Your task to perform on an android device: open app "Facebook" (install if not already installed) and enter user name: "resultants@gmail.com" and password: "earned" Image 0: 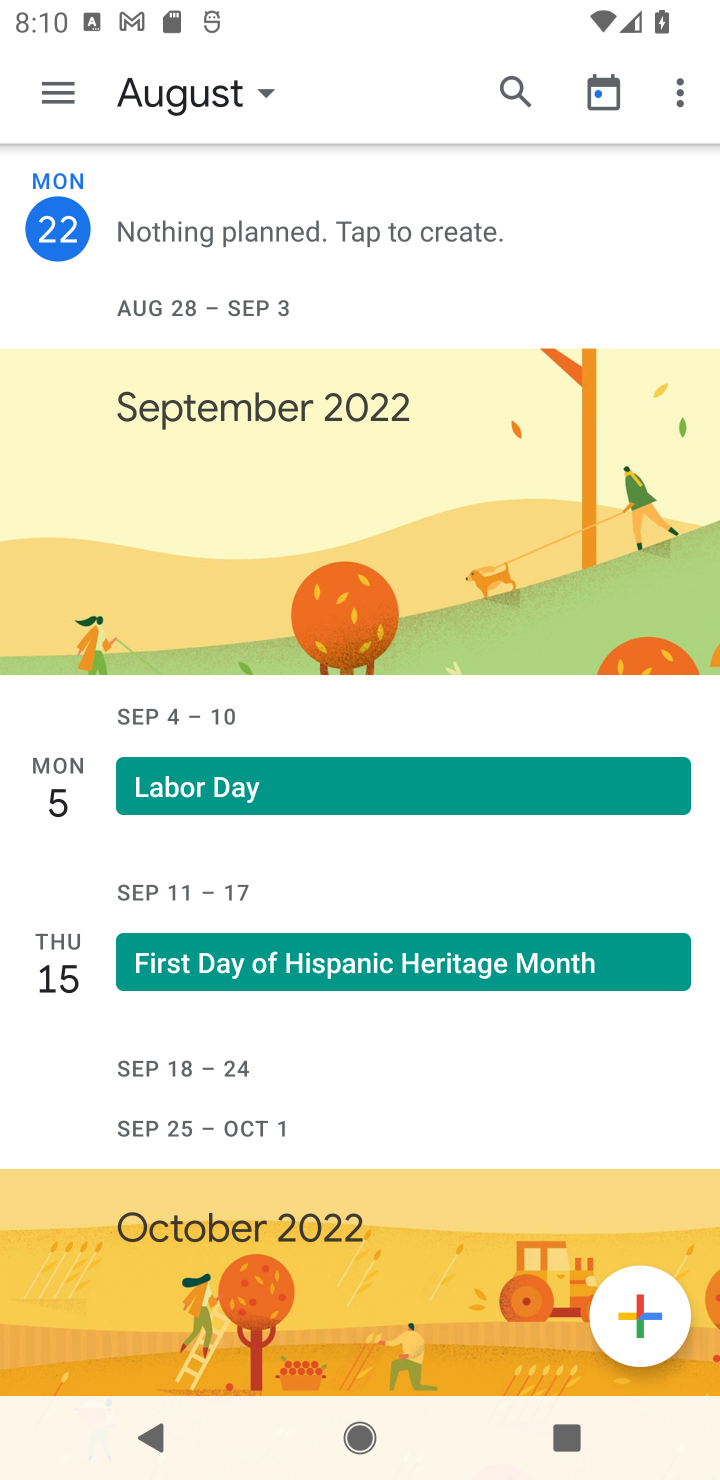
Step 0: press home button
Your task to perform on an android device: open app "Facebook" (install if not already installed) and enter user name: "resultants@gmail.com" and password: "earned" Image 1: 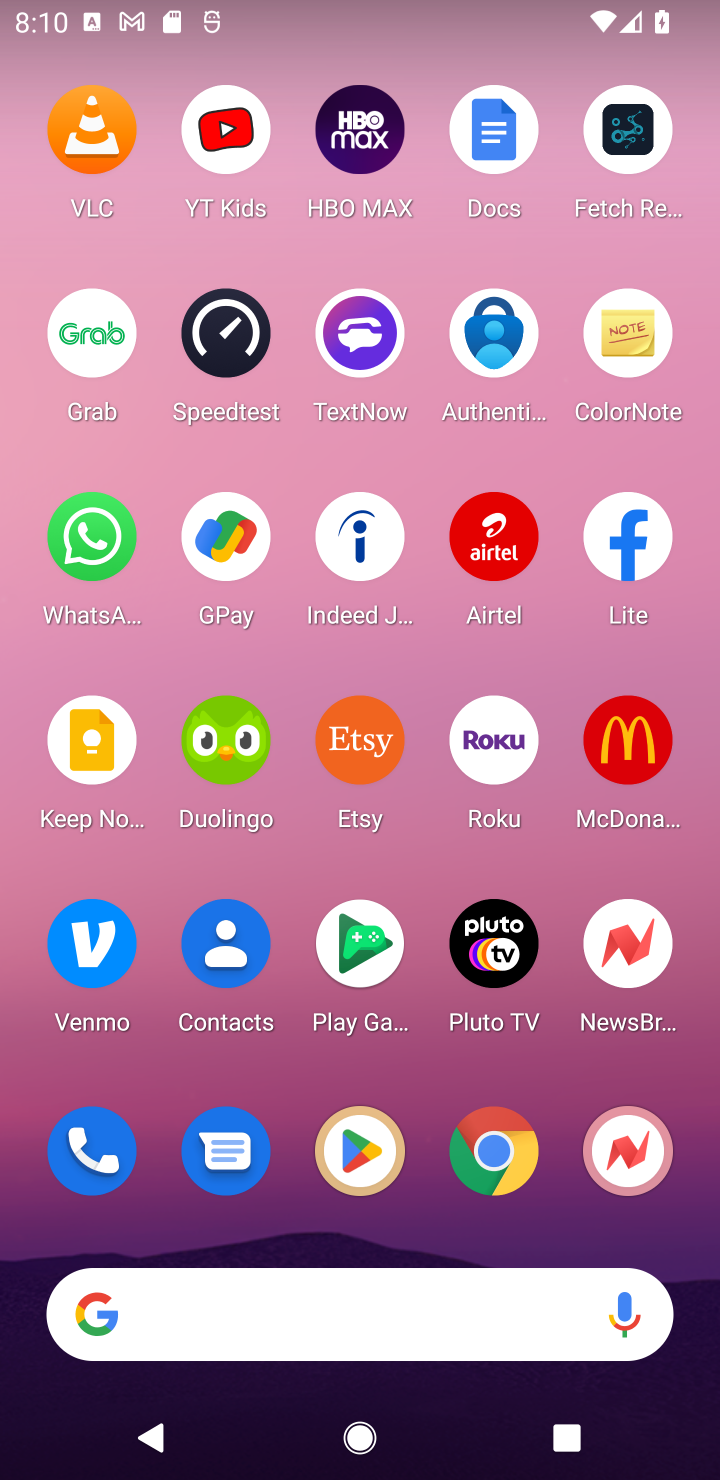
Step 1: press home button
Your task to perform on an android device: open app "Facebook" (install if not already installed) and enter user name: "resultants@gmail.com" and password: "earned" Image 2: 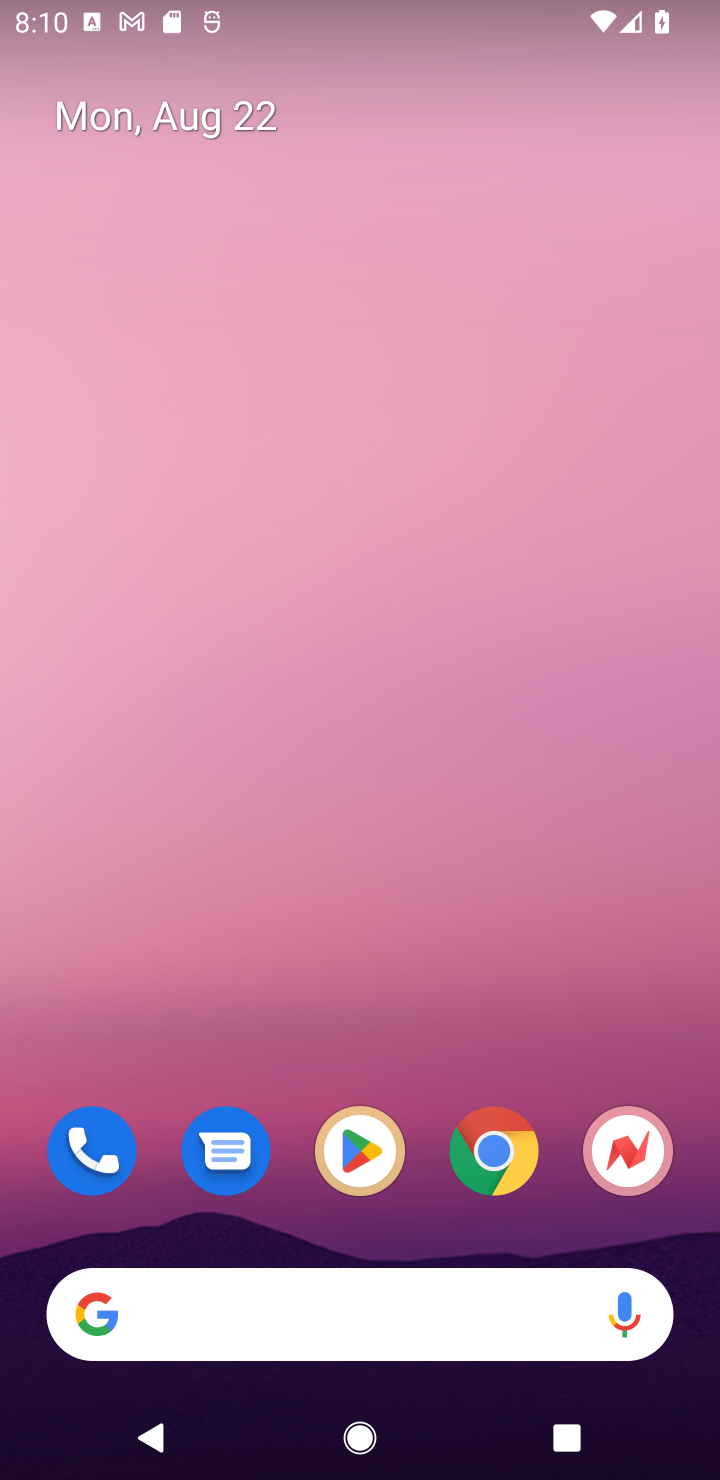
Step 2: click (362, 1160)
Your task to perform on an android device: open app "Facebook" (install if not already installed) and enter user name: "resultants@gmail.com" and password: "earned" Image 3: 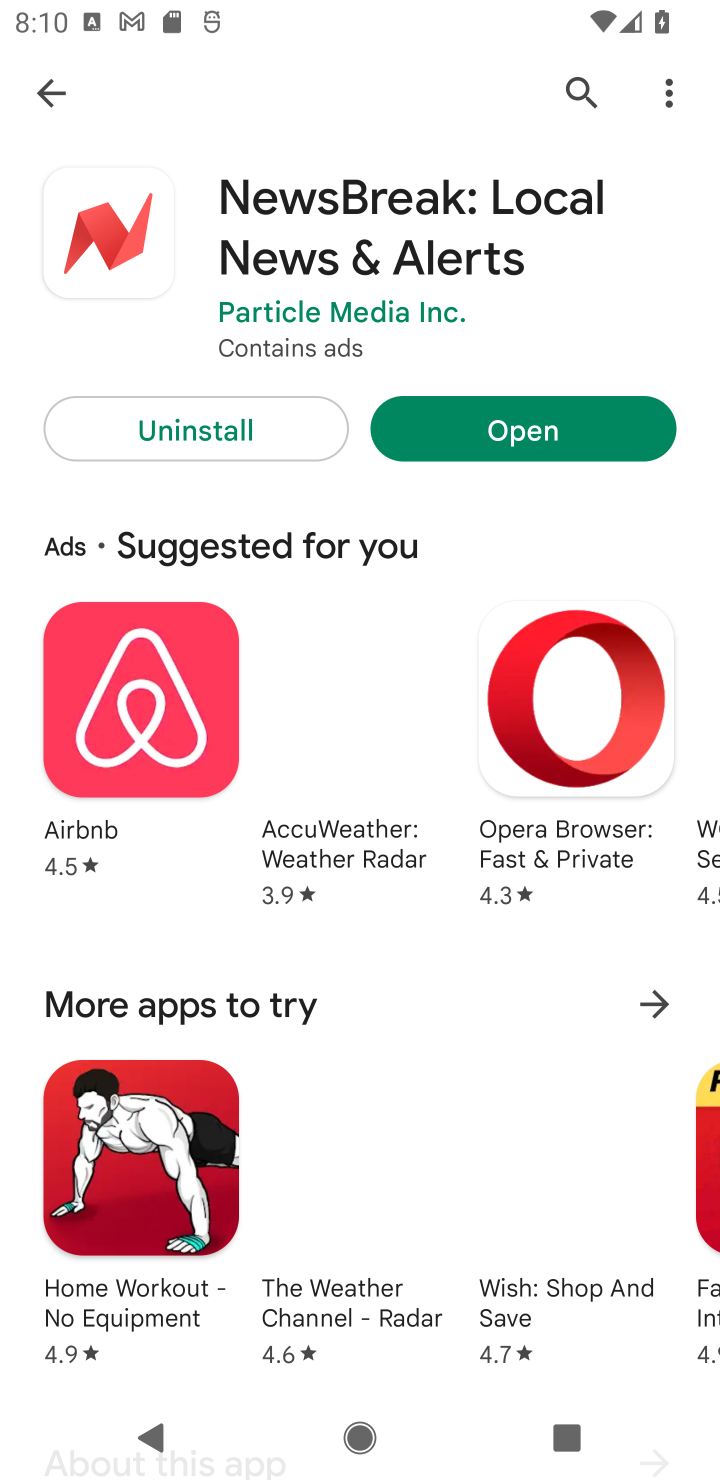
Step 3: click (581, 80)
Your task to perform on an android device: open app "Facebook" (install if not already installed) and enter user name: "resultants@gmail.com" and password: "earned" Image 4: 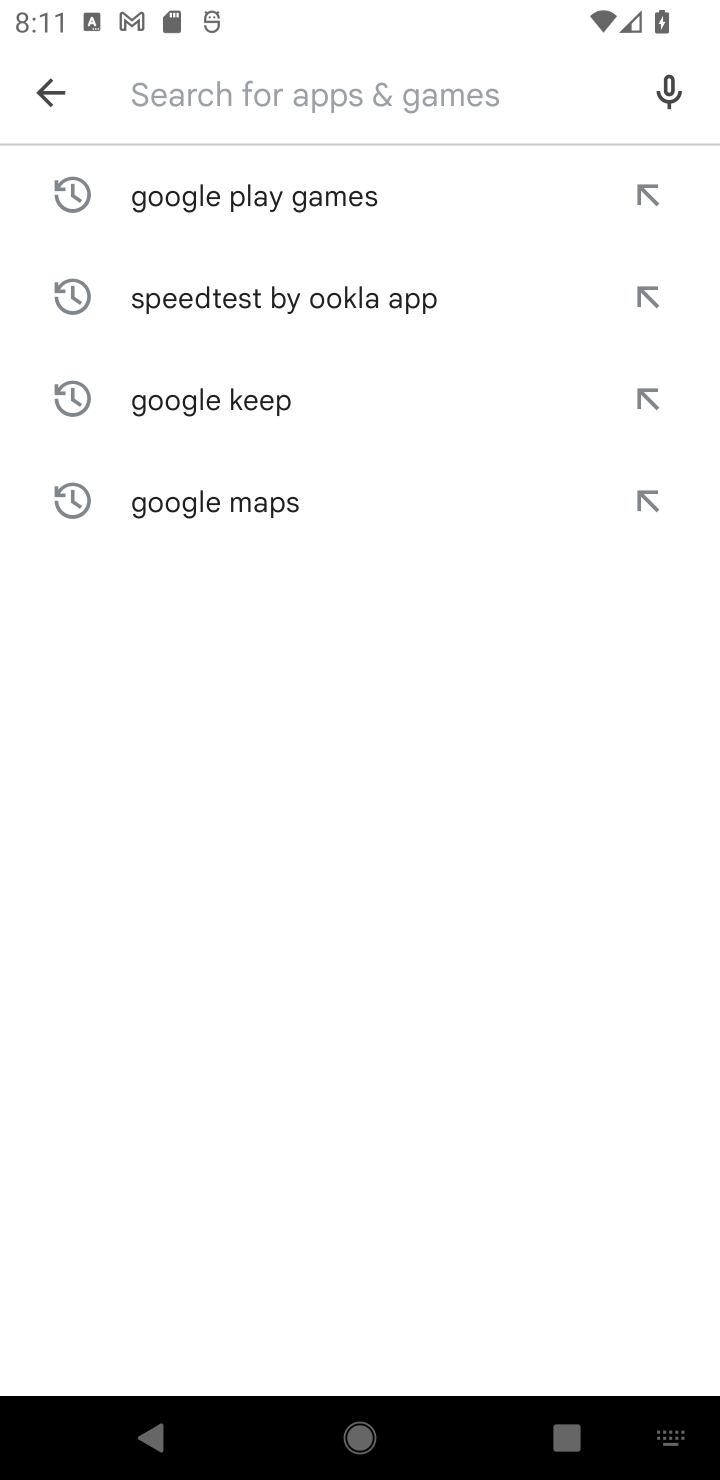
Step 4: type "Facebook"
Your task to perform on an android device: open app "Facebook" (install if not already installed) and enter user name: "resultants@gmail.com" and password: "earned" Image 5: 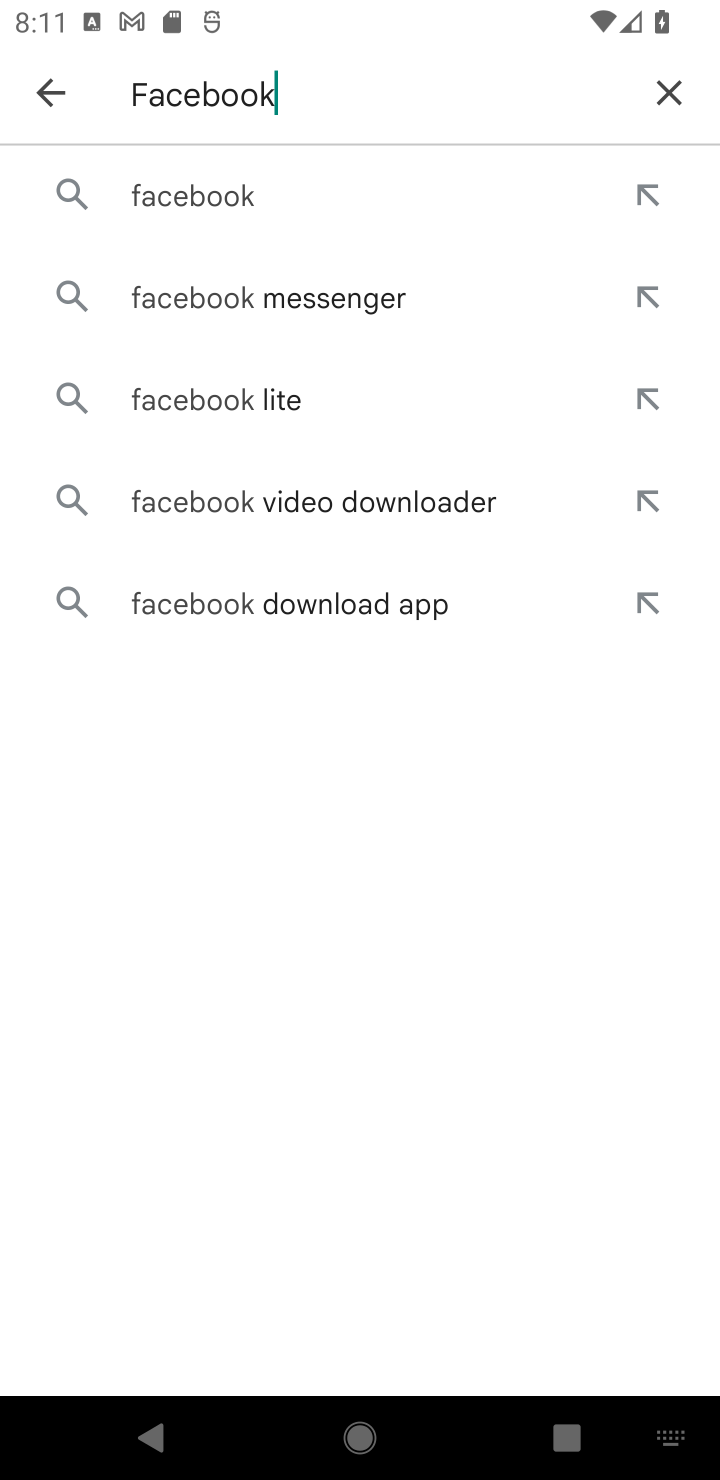
Step 5: click (148, 189)
Your task to perform on an android device: open app "Facebook" (install if not already installed) and enter user name: "resultants@gmail.com" and password: "earned" Image 6: 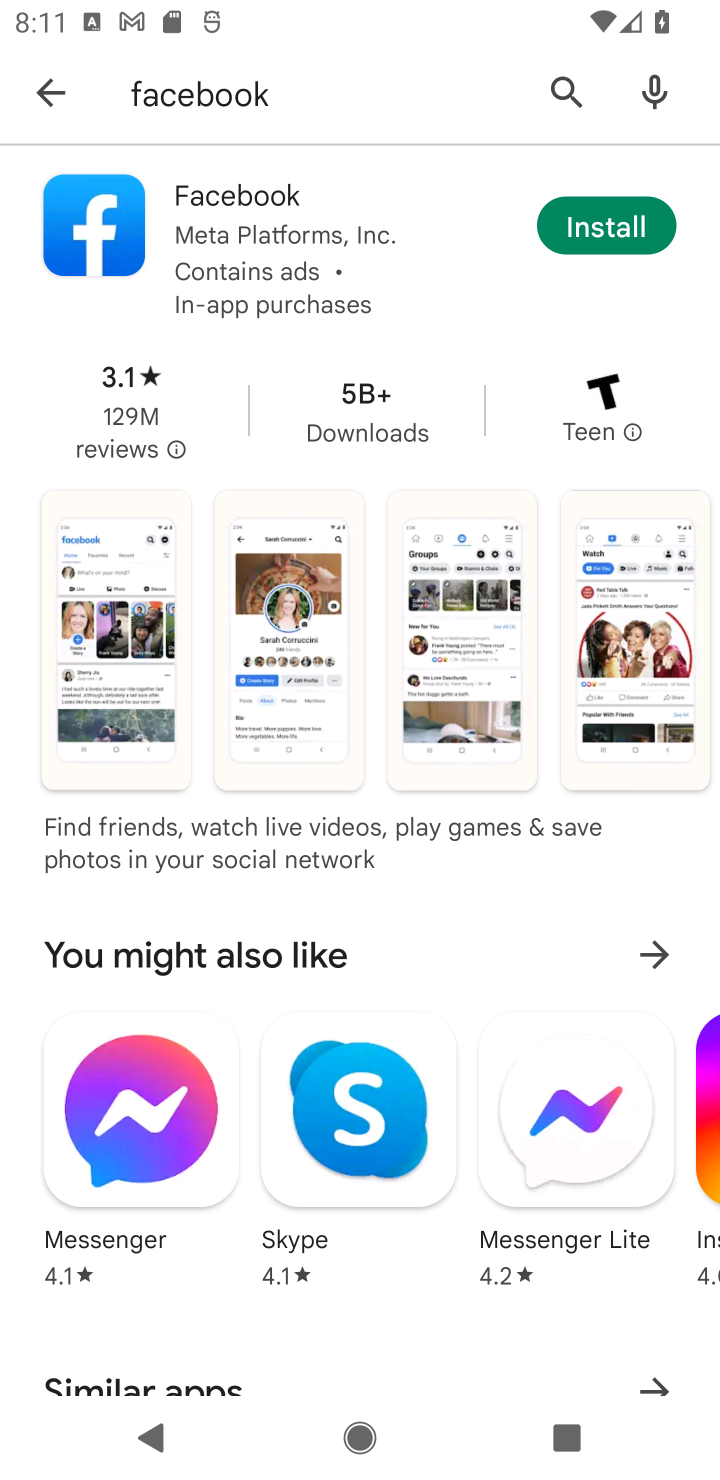
Step 6: click (634, 225)
Your task to perform on an android device: open app "Facebook" (install if not already installed) and enter user name: "resultants@gmail.com" and password: "earned" Image 7: 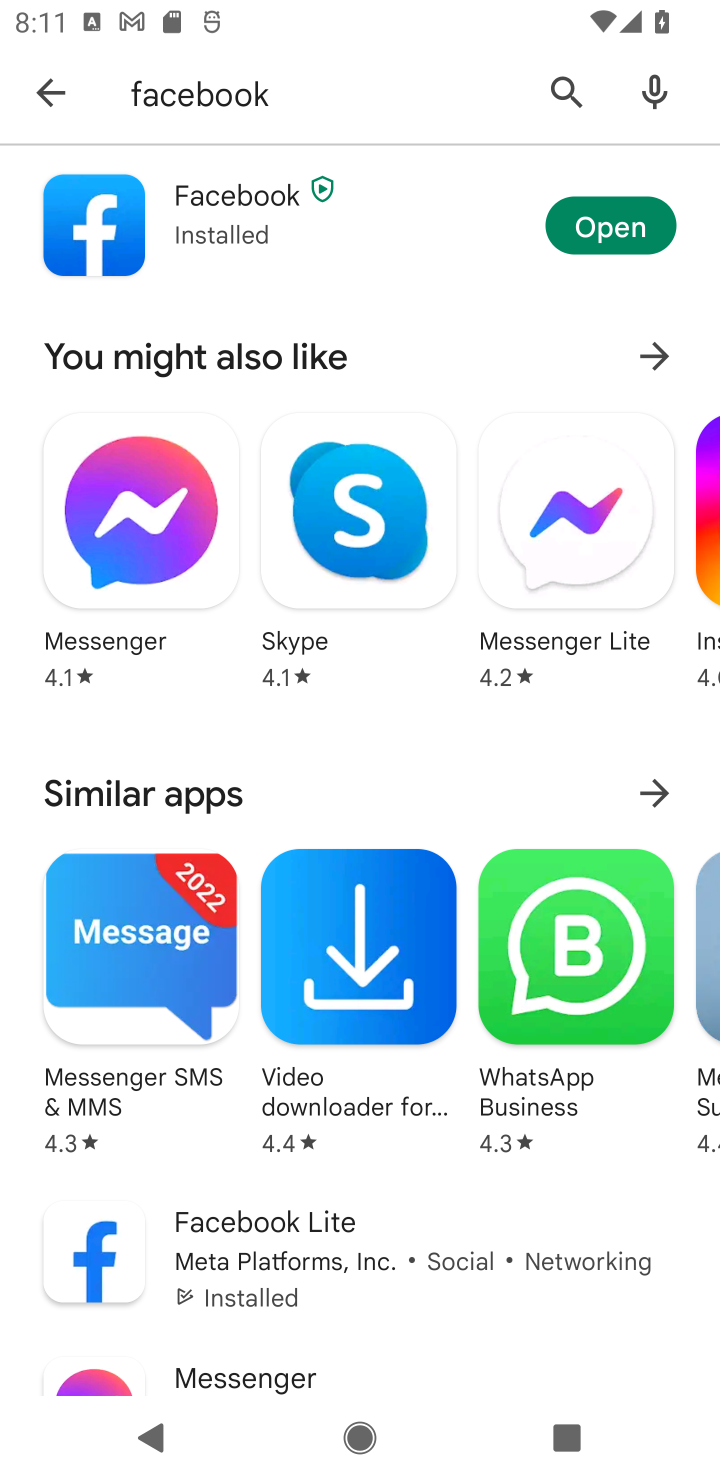
Step 7: click (607, 230)
Your task to perform on an android device: open app "Facebook" (install if not already installed) and enter user name: "resultants@gmail.com" and password: "earned" Image 8: 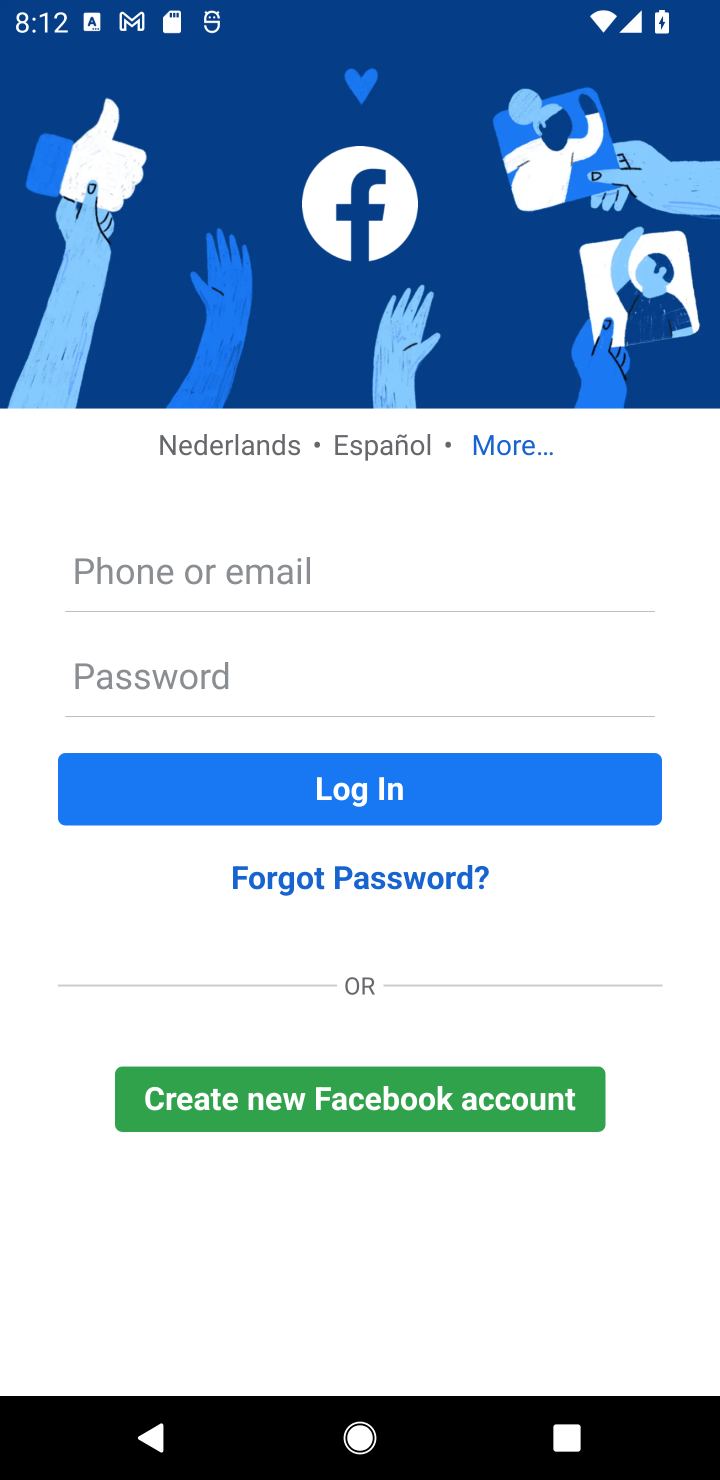
Step 8: click (204, 580)
Your task to perform on an android device: open app "Facebook" (install if not already installed) and enter user name: "resultants@gmail.com" and password: "earned" Image 9: 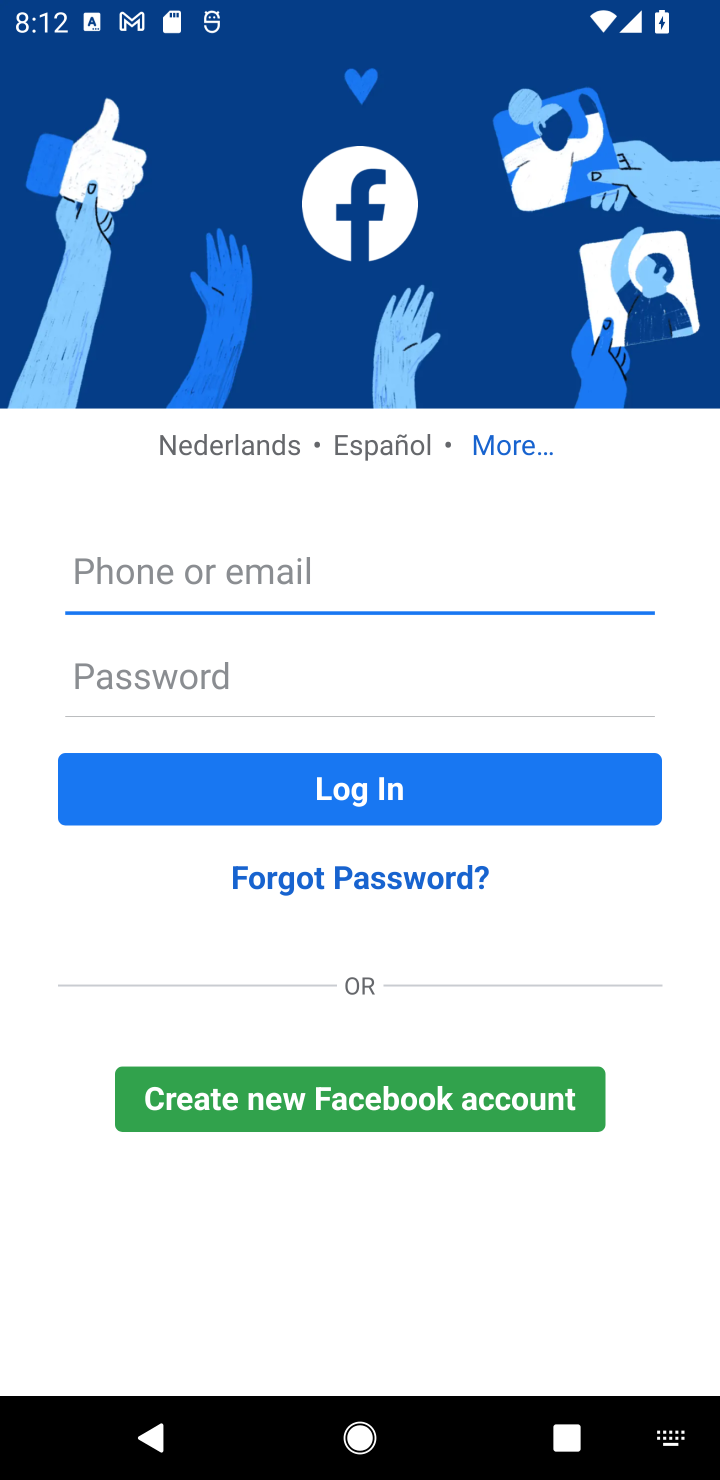
Step 9: type "resultants@gmail.com"
Your task to perform on an android device: open app "Facebook" (install if not already installed) and enter user name: "resultants@gmail.com" and password: "earned" Image 10: 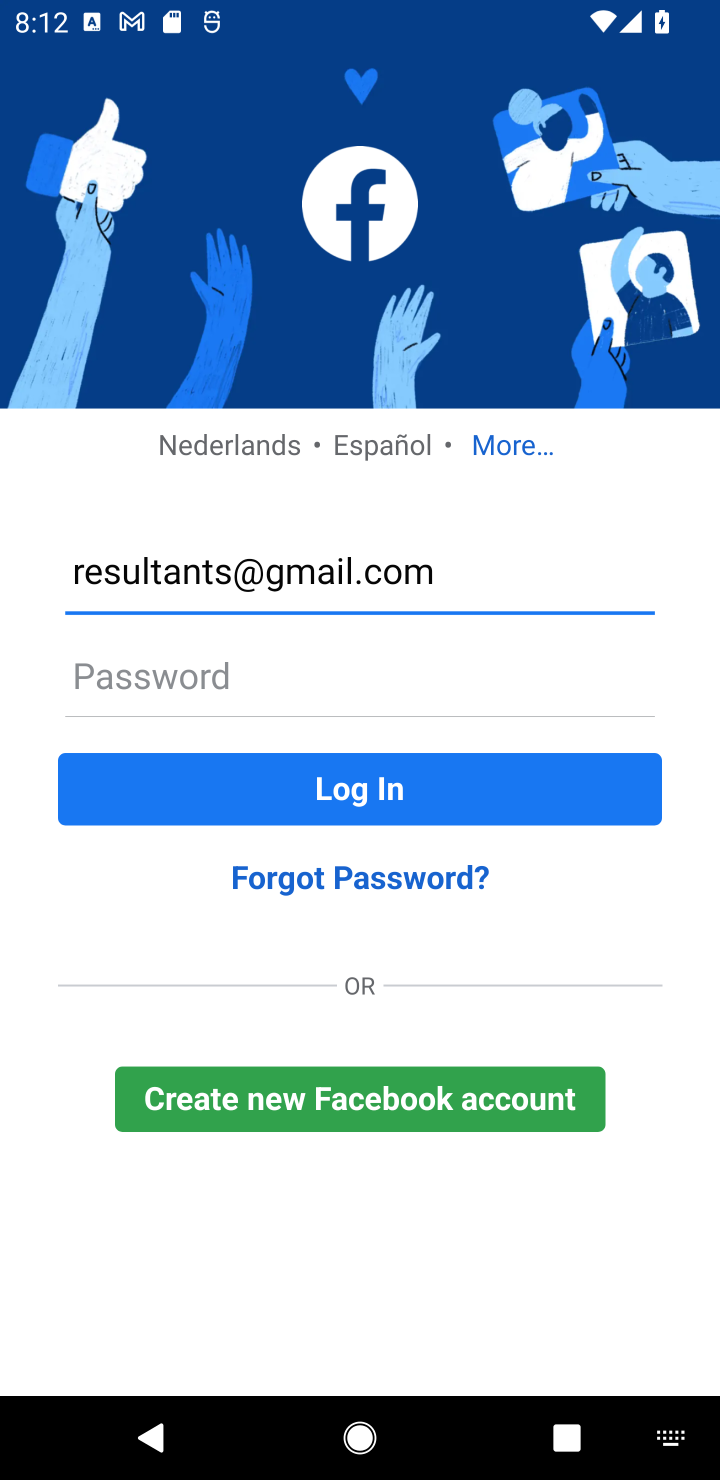
Step 10: click (164, 666)
Your task to perform on an android device: open app "Facebook" (install if not already installed) and enter user name: "resultants@gmail.com" and password: "earned" Image 11: 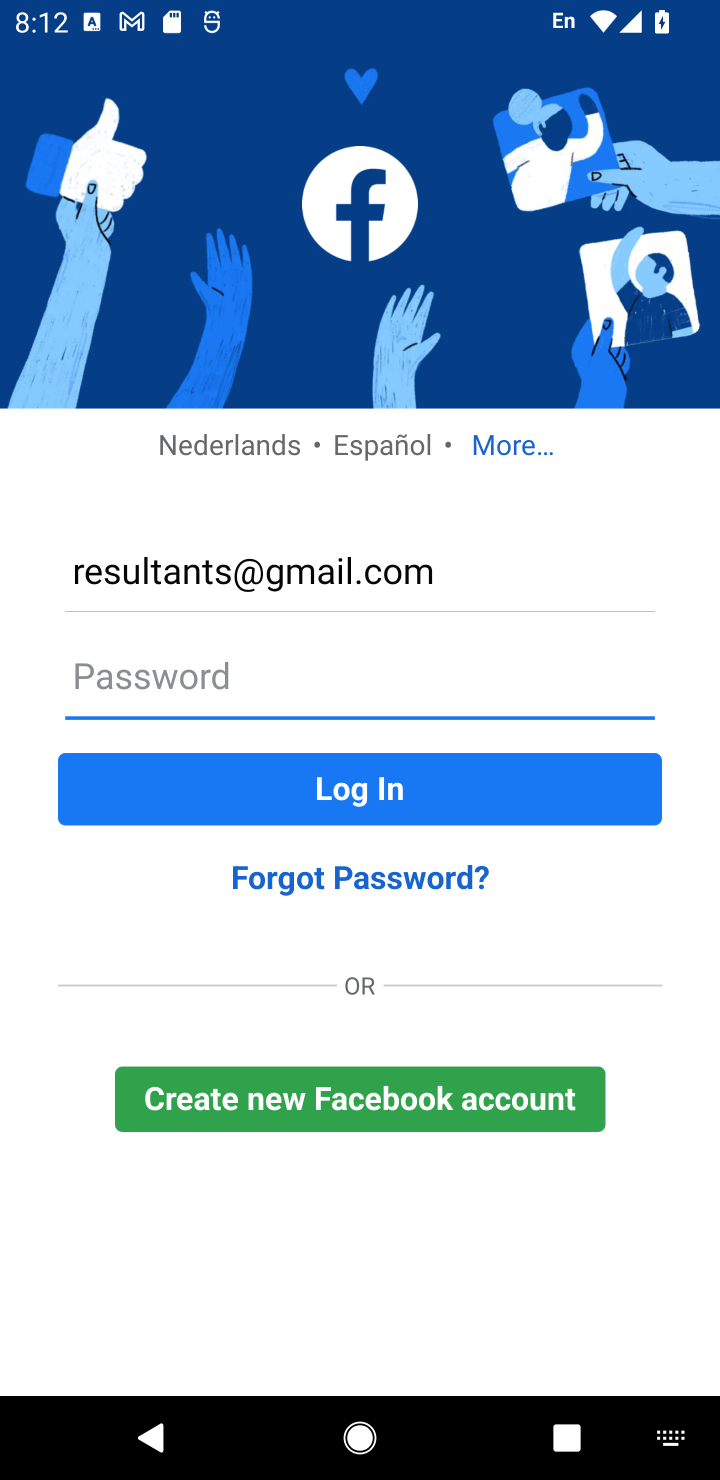
Step 11: click (95, 653)
Your task to perform on an android device: open app "Facebook" (install if not already installed) and enter user name: "resultants@gmail.com" and password: "earned" Image 12: 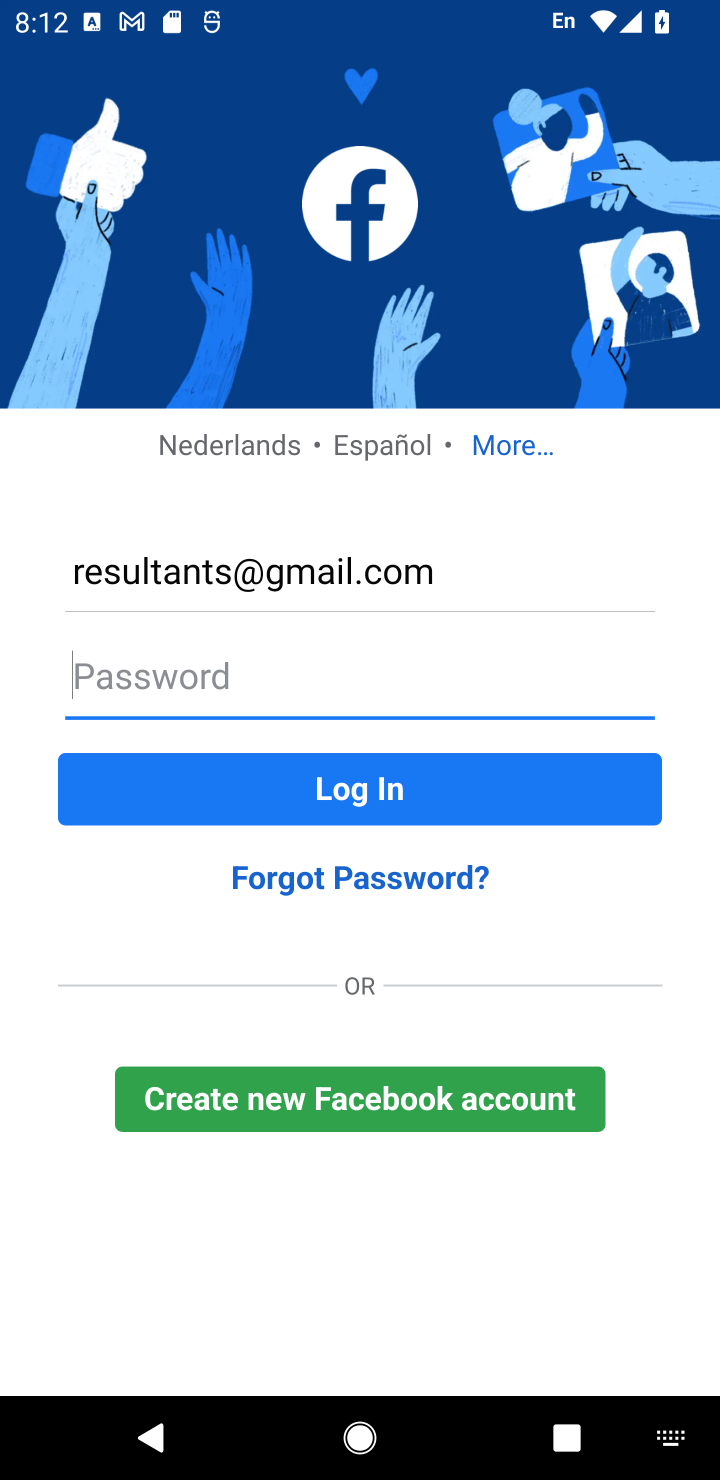
Step 12: click (281, 677)
Your task to perform on an android device: open app "Facebook" (install if not already installed) and enter user name: "resultants@gmail.com" and password: "earned" Image 13: 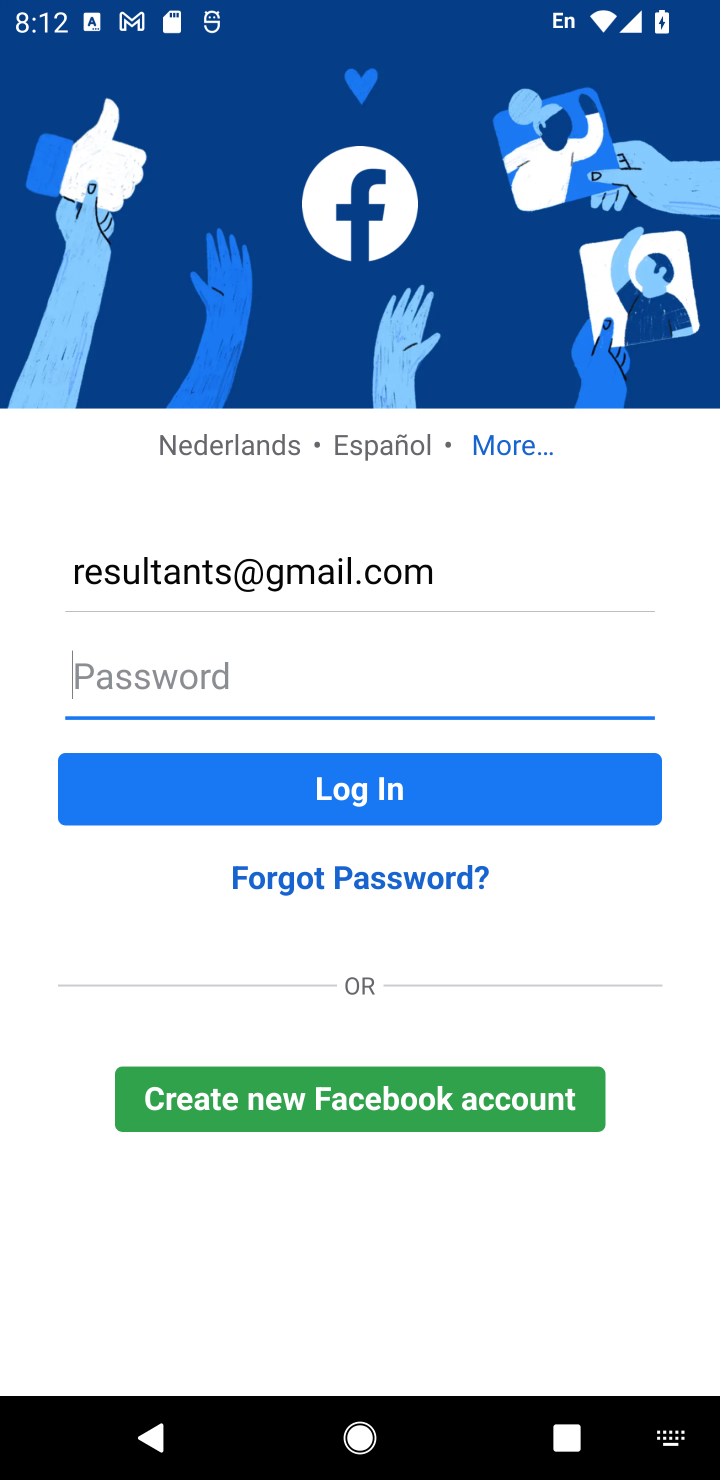
Step 13: click (334, 645)
Your task to perform on an android device: open app "Facebook" (install if not already installed) and enter user name: "resultants@gmail.com" and password: "earned" Image 14: 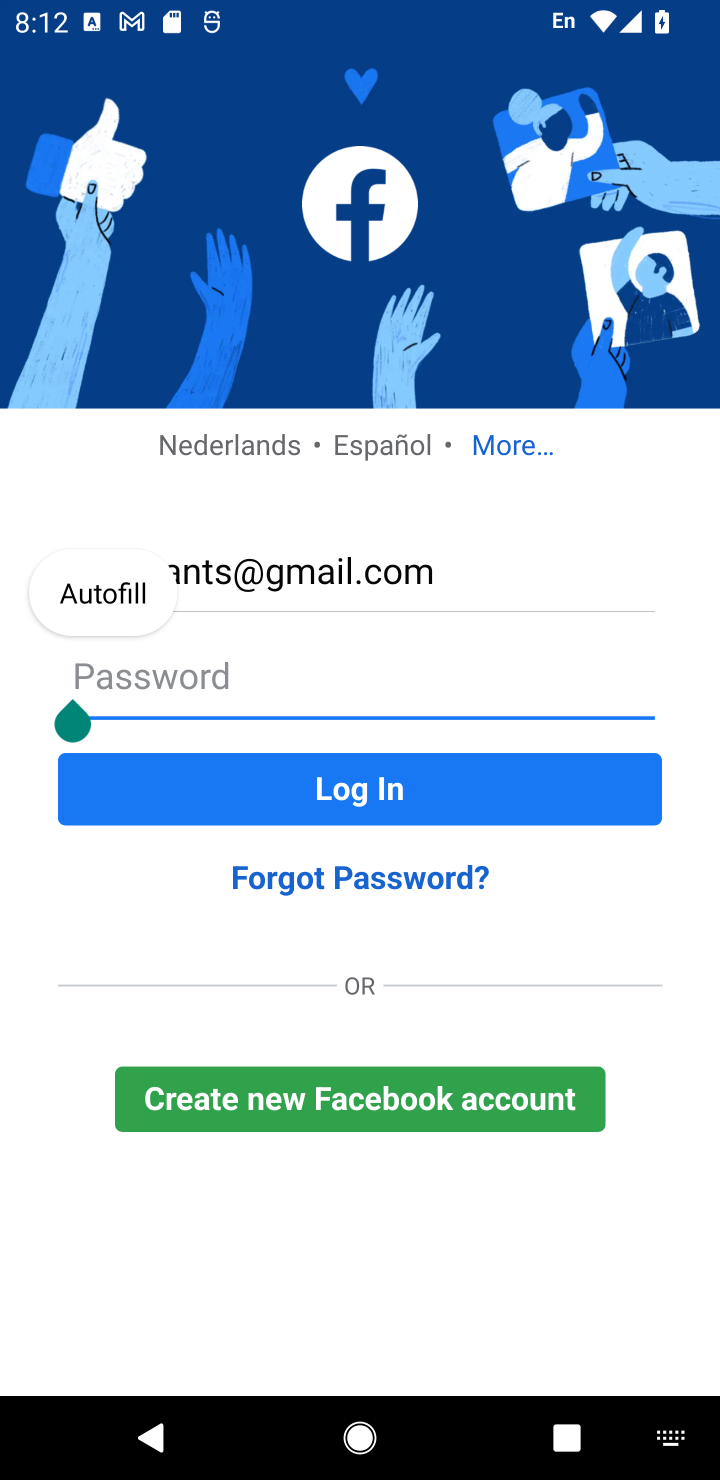
Step 14: click (460, 544)
Your task to perform on an android device: open app "Facebook" (install if not already installed) and enter user name: "resultants@gmail.com" and password: "earned" Image 15: 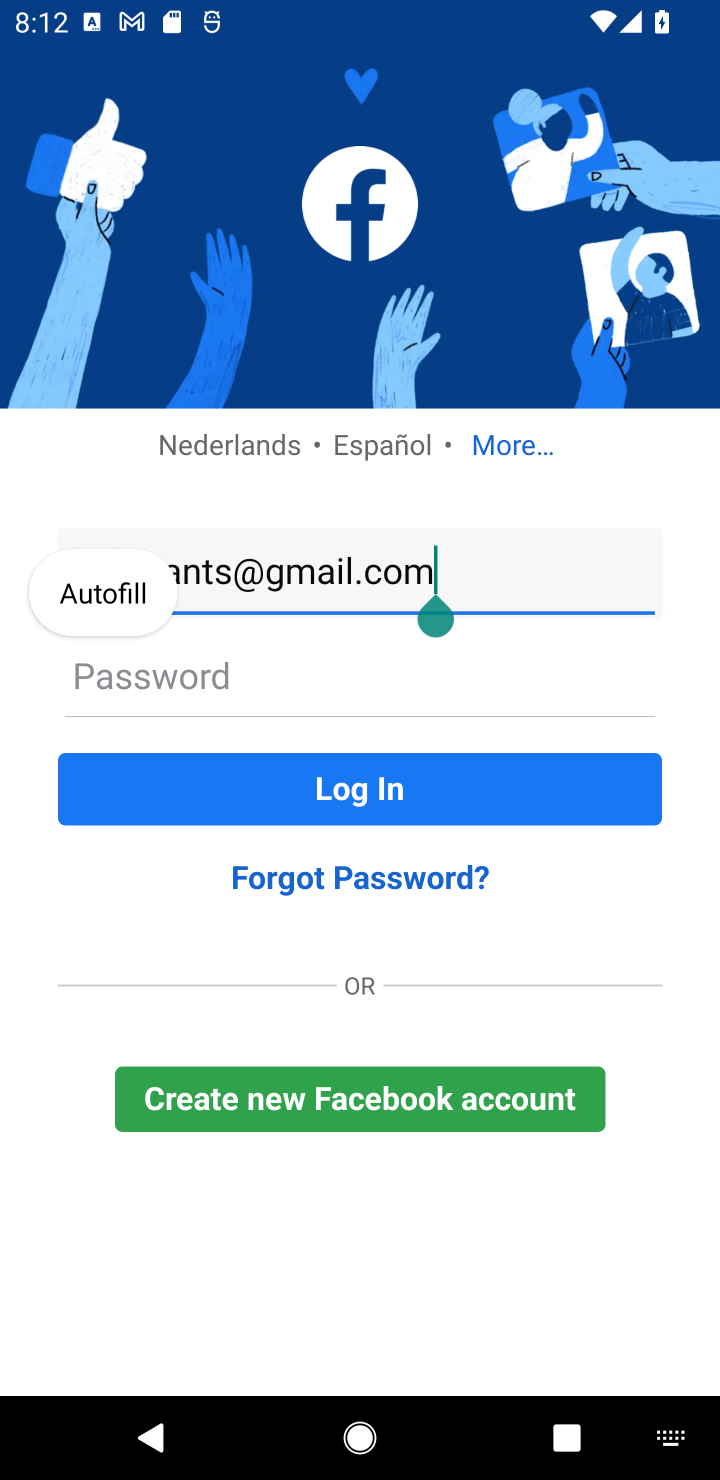
Step 15: click (296, 666)
Your task to perform on an android device: open app "Facebook" (install if not already installed) and enter user name: "resultants@gmail.com" and password: "earned" Image 16: 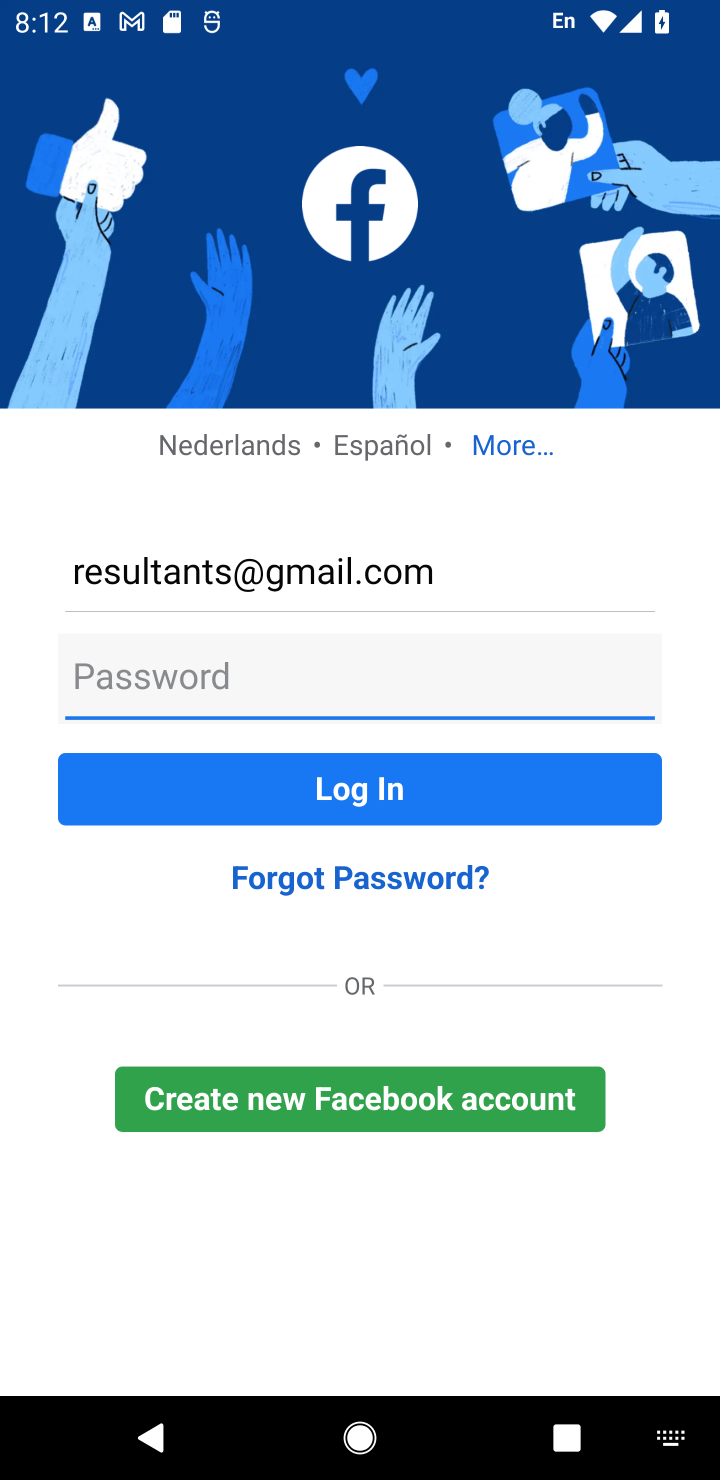
Step 16: click (232, 683)
Your task to perform on an android device: open app "Facebook" (install if not already installed) and enter user name: "resultants@gmail.com" and password: "earned" Image 17: 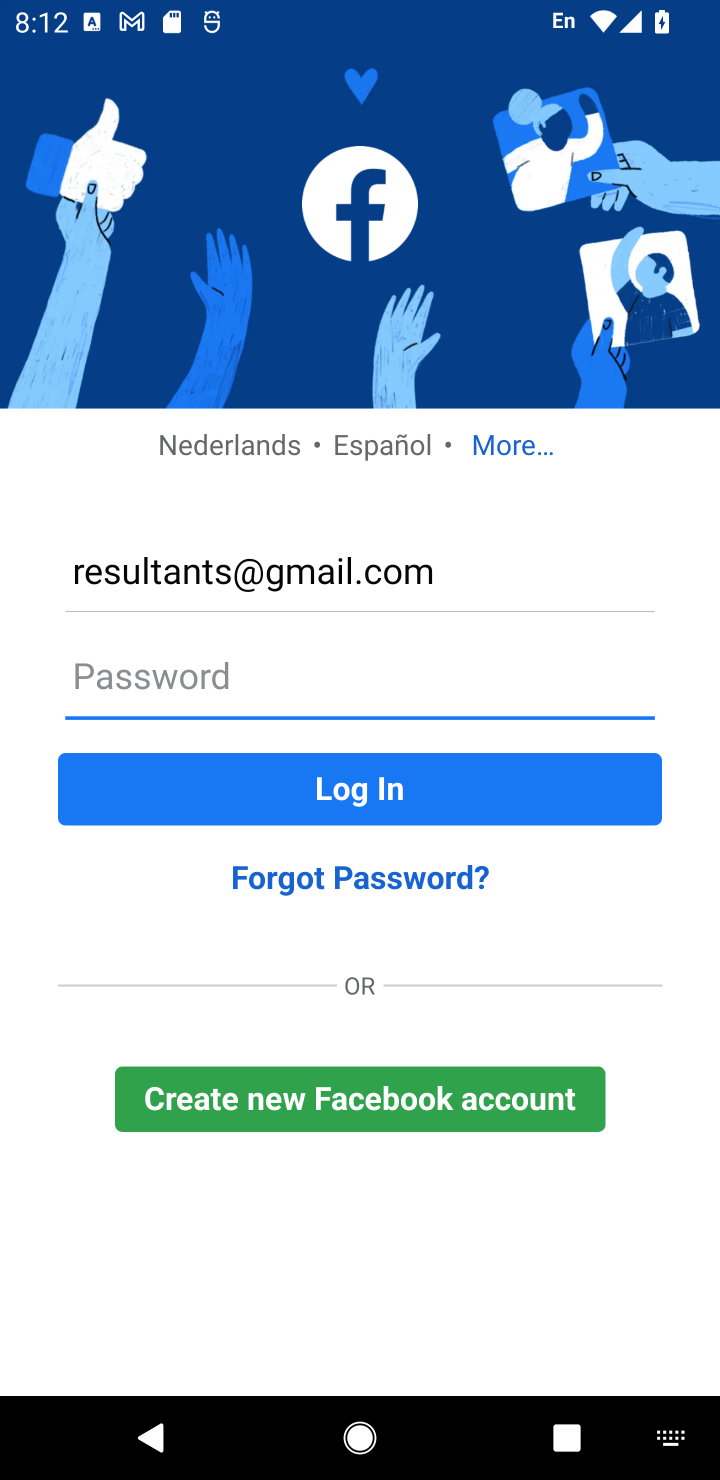
Step 17: click (53, 667)
Your task to perform on an android device: open app "Facebook" (install if not already installed) and enter user name: "resultants@gmail.com" and password: "earned" Image 18: 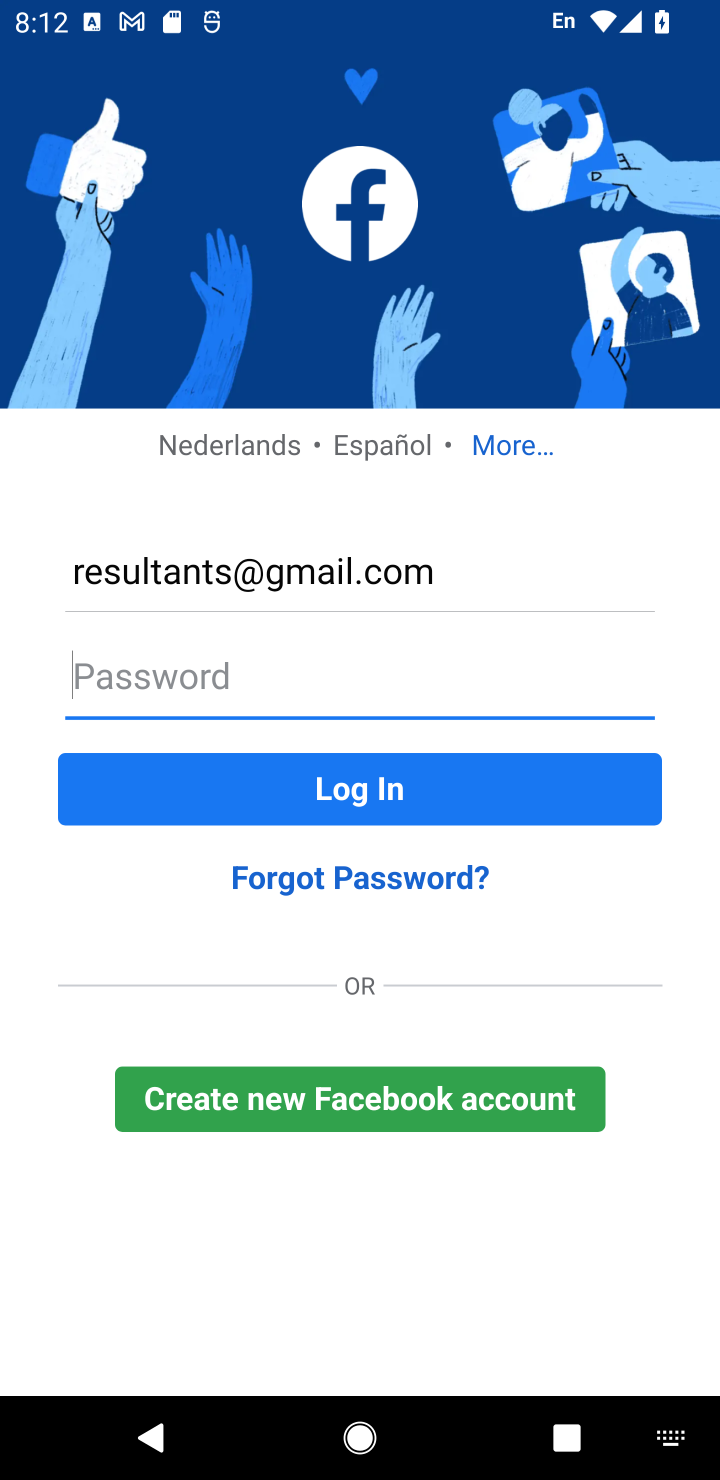
Step 18: click (82, 664)
Your task to perform on an android device: open app "Facebook" (install if not already installed) and enter user name: "resultants@gmail.com" and password: "earned" Image 19: 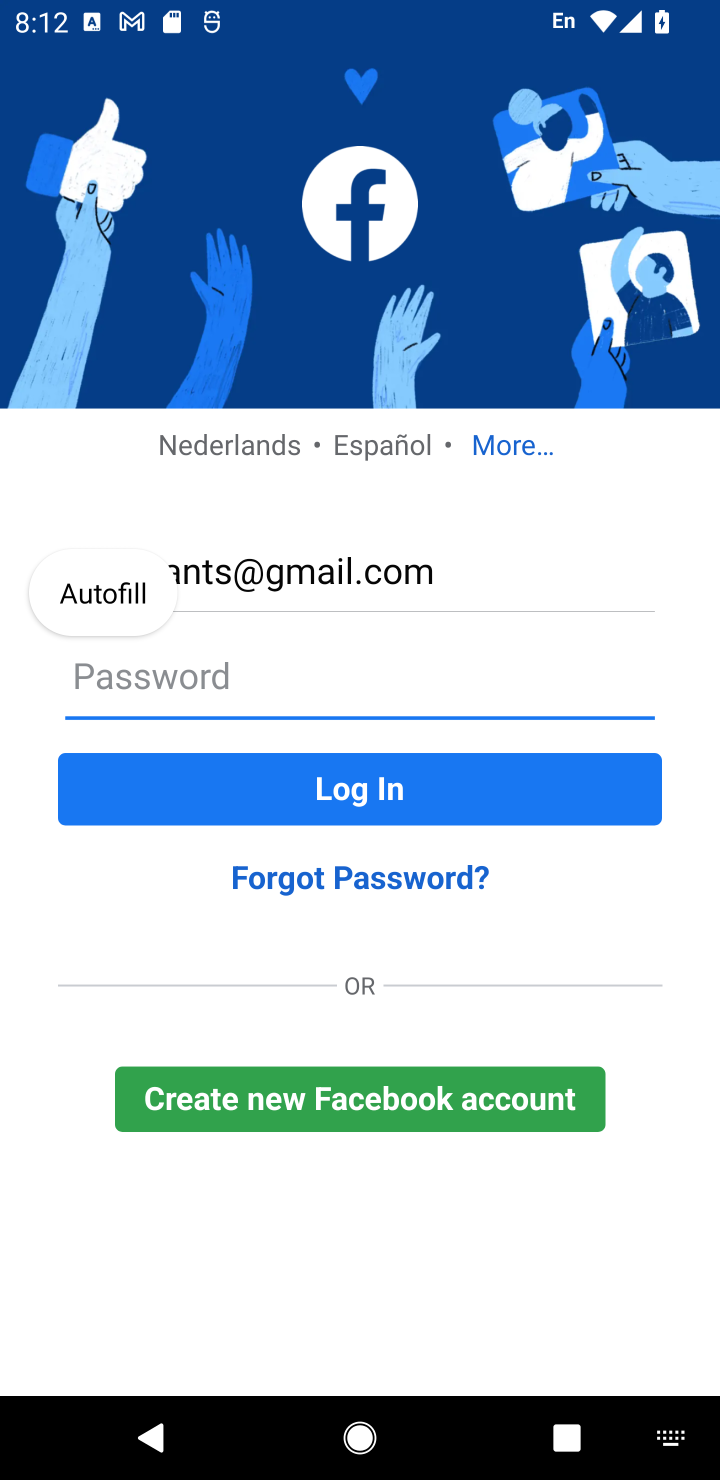
Step 19: type "earned"
Your task to perform on an android device: open app "Facebook" (install if not already installed) and enter user name: "resultants@gmail.com" and password: "earned" Image 20: 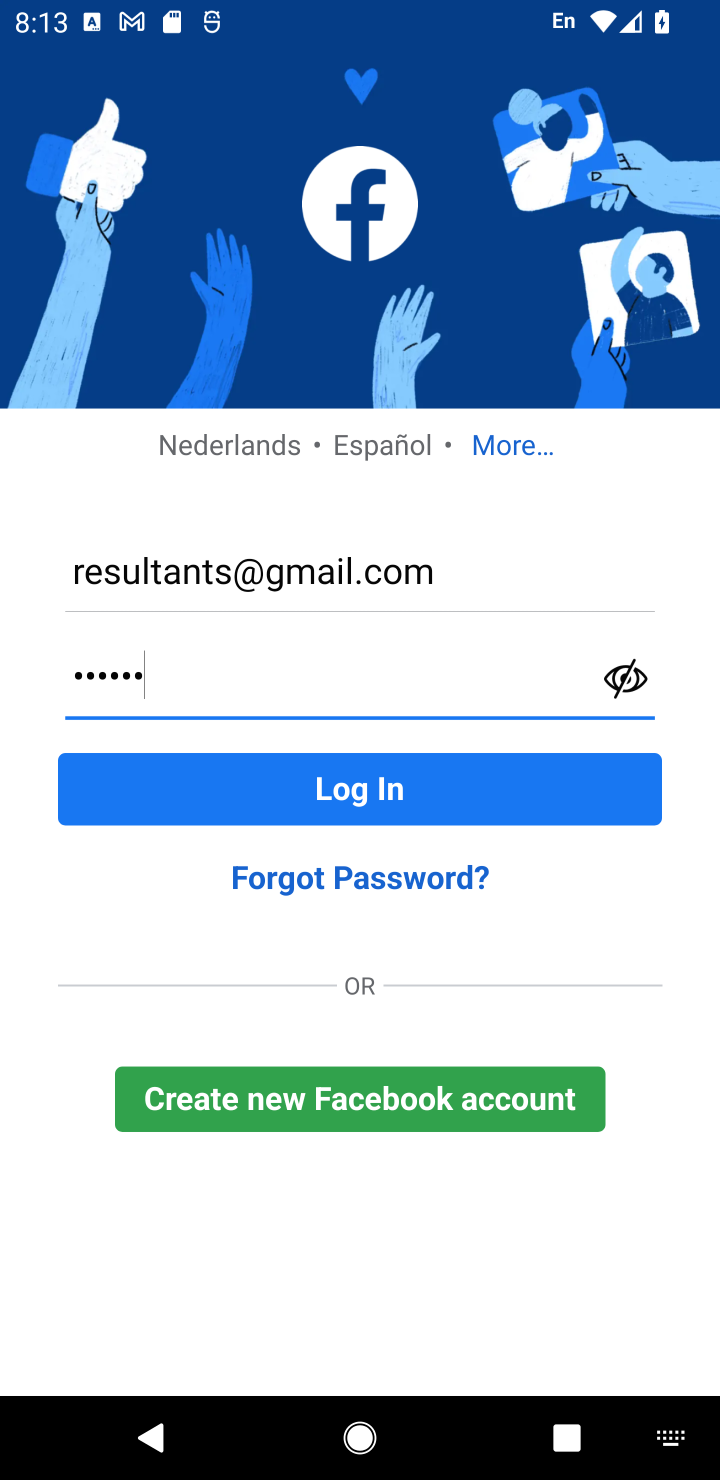
Step 20: task complete